Your task to perform on an android device: toggle pop-ups in chrome Image 0: 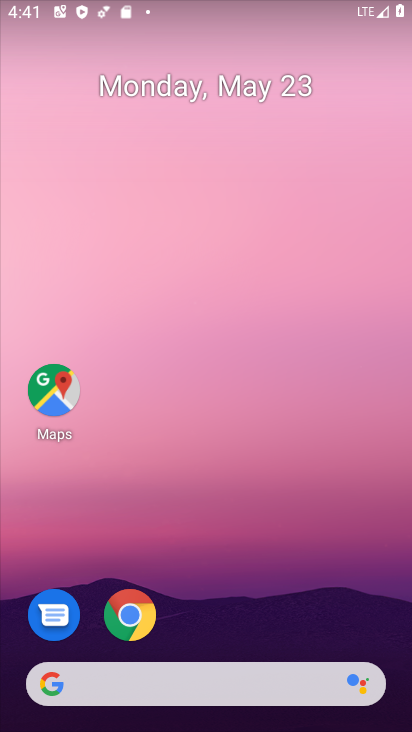
Step 0: drag from (262, 631) to (251, 209)
Your task to perform on an android device: toggle pop-ups in chrome Image 1: 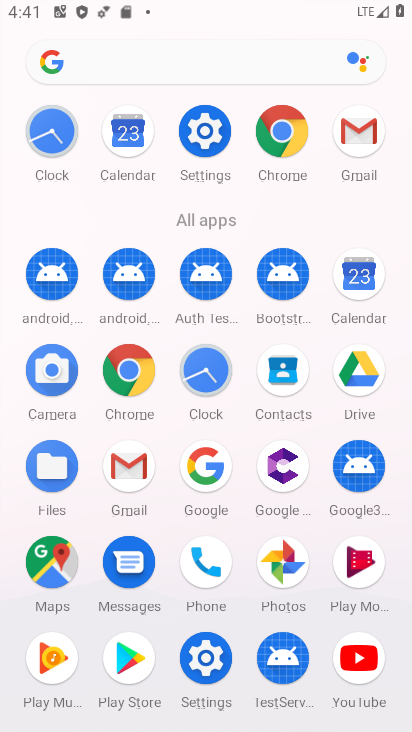
Step 1: click (121, 362)
Your task to perform on an android device: toggle pop-ups in chrome Image 2: 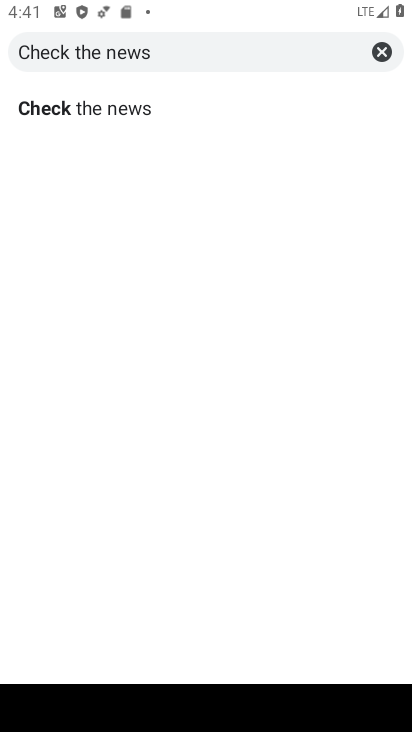
Step 2: click (380, 47)
Your task to perform on an android device: toggle pop-ups in chrome Image 3: 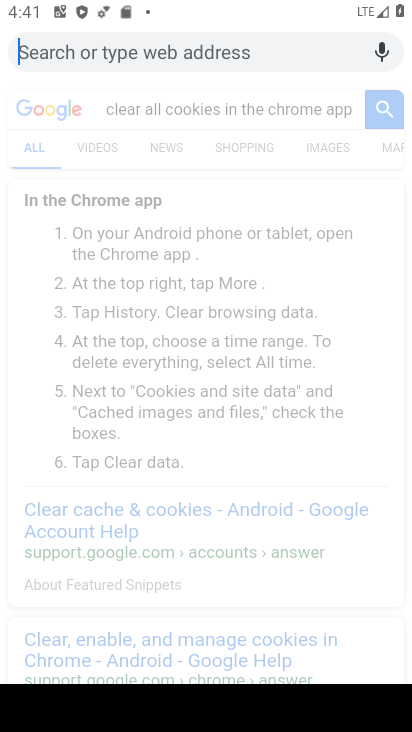
Step 3: press back button
Your task to perform on an android device: toggle pop-ups in chrome Image 4: 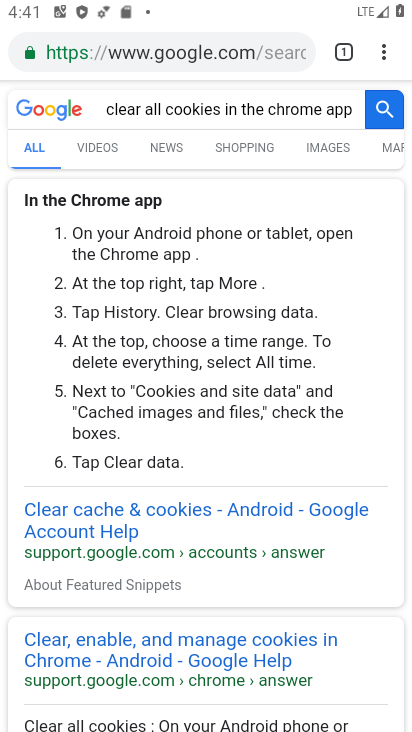
Step 4: drag from (383, 45) to (222, 634)
Your task to perform on an android device: toggle pop-ups in chrome Image 5: 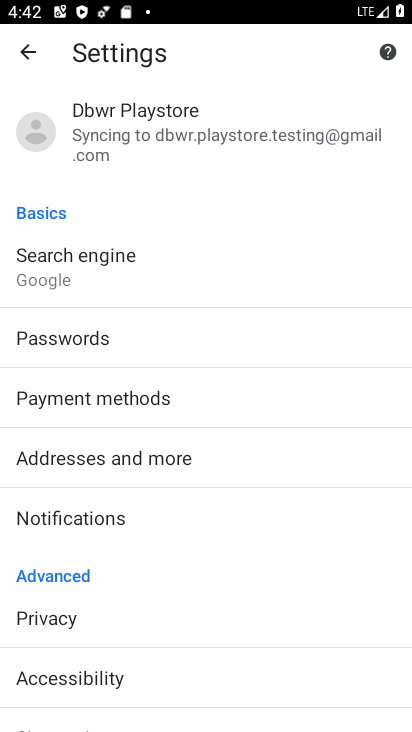
Step 5: drag from (121, 580) to (146, 231)
Your task to perform on an android device: toggle pop-ups in chrome Image 6: 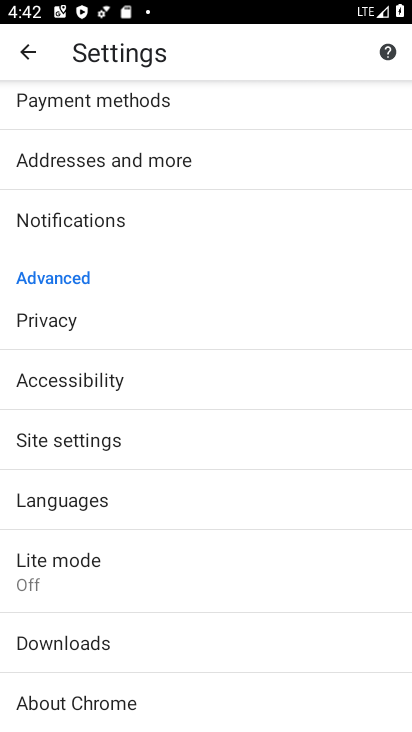
Step 6: click (107, 437)
Your task to perform on an android device: toggle pop-ups in chrome Image 7: 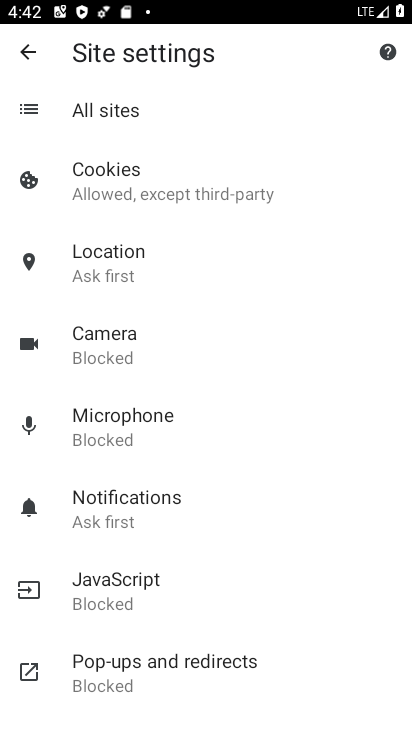
Step 7: click (162, 661)
Your task to perform on an android device: toggle pop-ups in chrome Image 8: 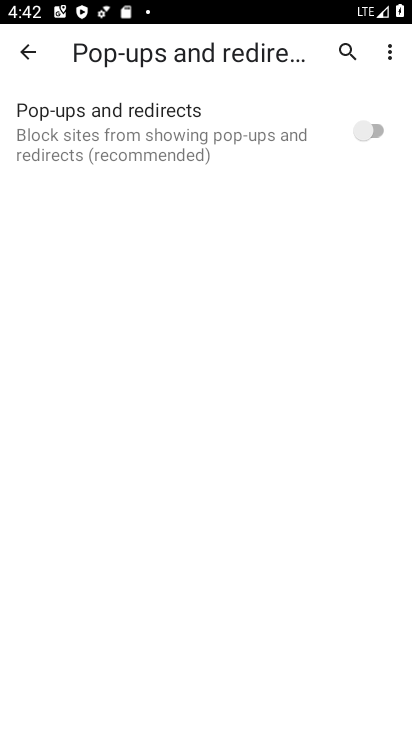
Step 8: click (373, 126)
Your task to perform on an android device: toggle pop-ups in chrome Image 9: 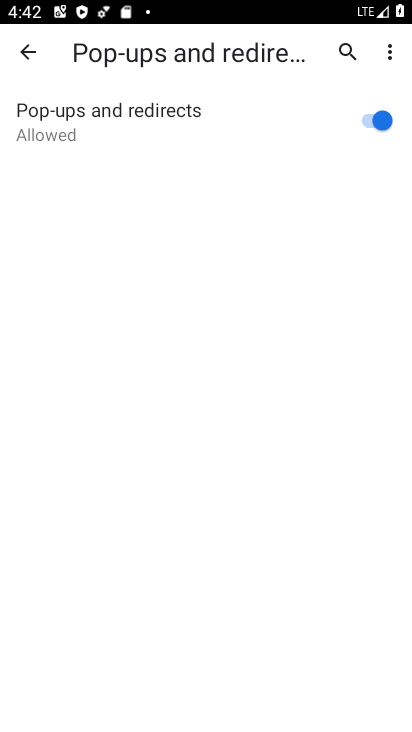
Step 9: task complete